Your task to perform on an android device: turn off notifications in google photos Image 0: 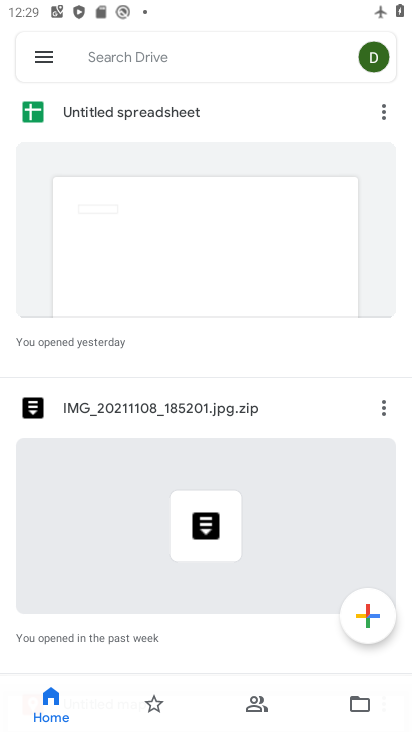
Step 0: press home button
Your task to perform on an android device: turn off notifications in google photos Image 1: 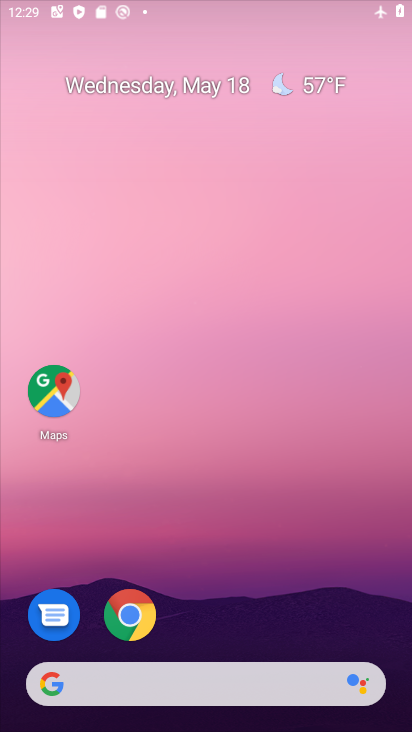
Step 1: drag from (383, 620) to (279, 17)
Your task to perform on an android device: turn off notifications in google photos Image 2: 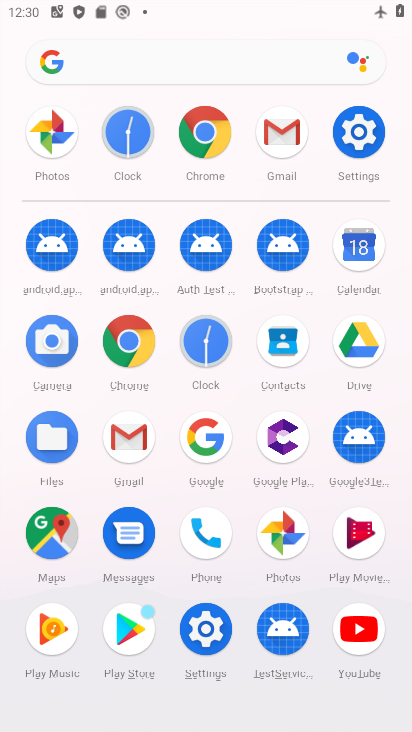
Step 2: click (278, 551)
Your task to perform on an android device: turn off notifications in google photos Image 3: 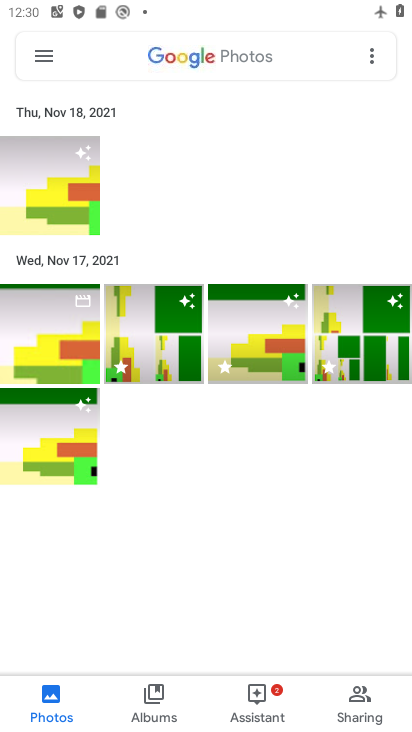
Step 3: click (41, 52)
Your task to perform on an android device: turn off notifications in google photos Image 4: 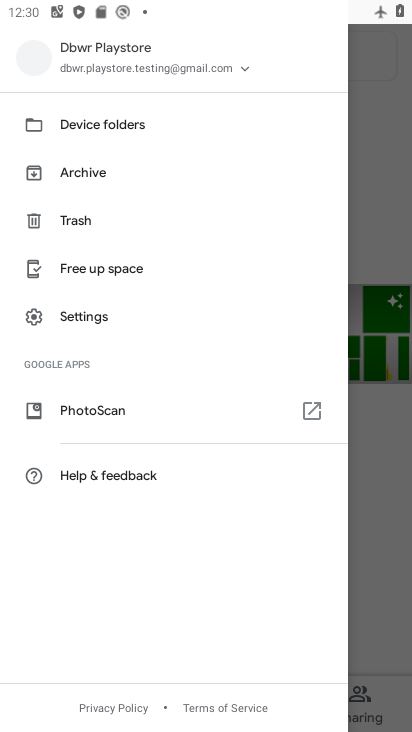
Step 4: click (128, 321)
Your task to perform on an android device: turn off notifications in google photos Image 5: 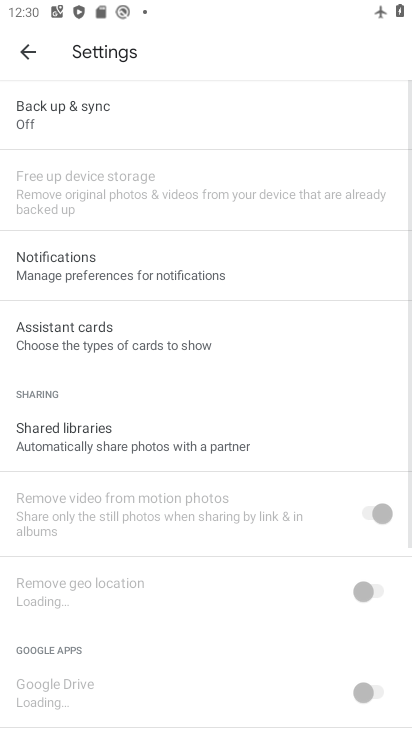
Step 5: click (100, 291)
Your task to perform on an android device: turn off notifications in google photos Image 6: 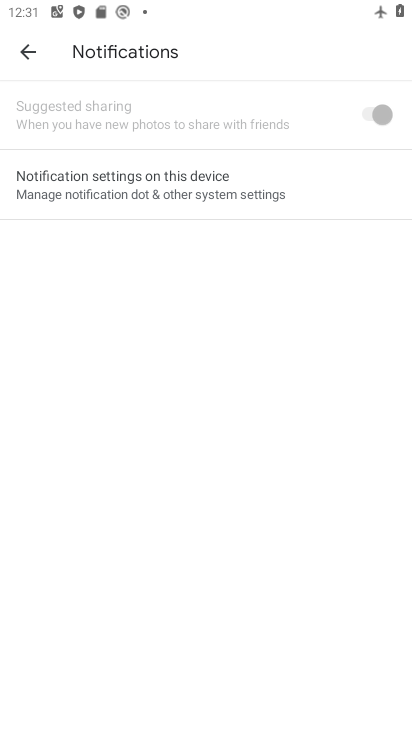
Step 6: task complete